Your task to perform on an android device: Search for Italian restaurants on Maps Image 0: 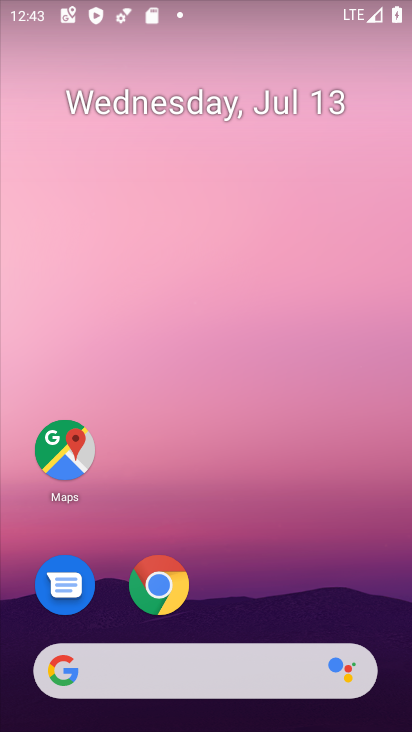
Step 0: drag from (206, 599) to (182, 74)
Your task to perform on an android device: Search for Italian restaurants on Maps Image 1: 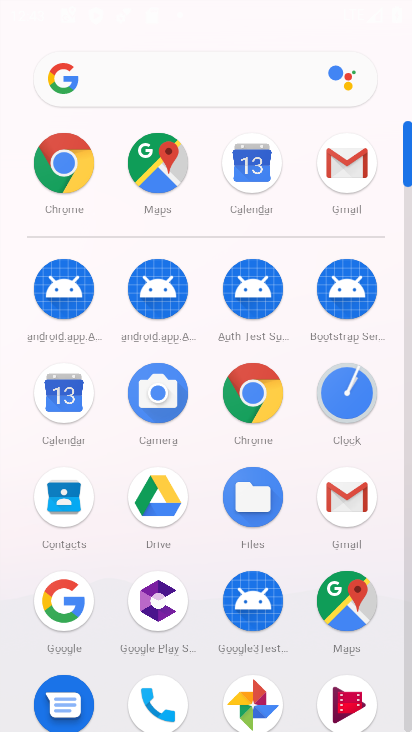
Step 1: click (162, 182)
Your task to perform on an android device: Search for Italian restaurants on Maps Image 2: 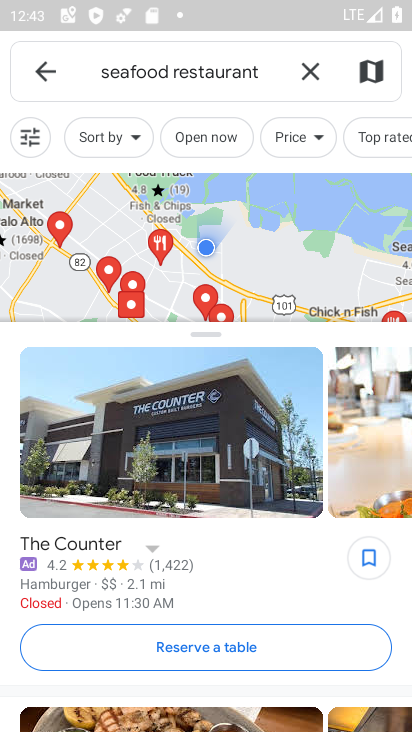
Step 2: task complete